Your task to perform on an android device: snooze an email in the gmail app Image 0: 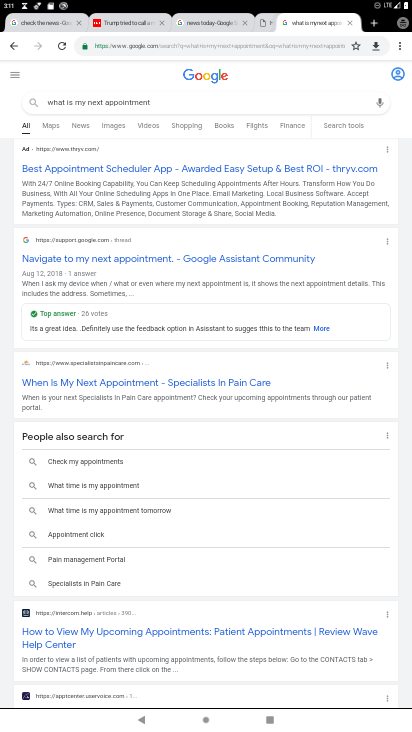
Step 0: press home button
Your task to perform on an android device: snooze an email in the gmail app Image 1: 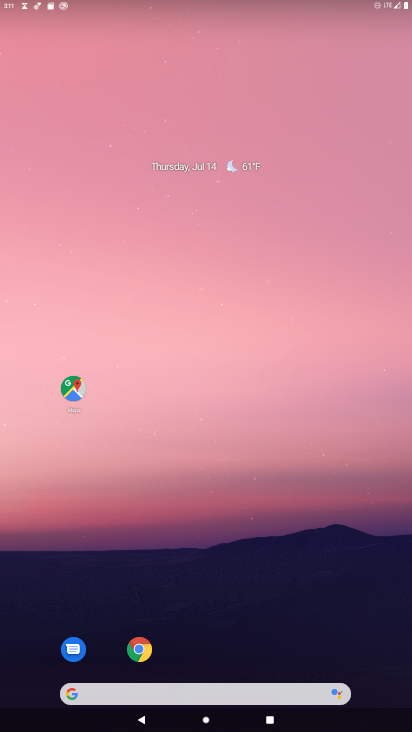
Step 1: drag from (274, 703) to (271, 72)
Your task to perform on an android device: snooze an email in the gmail app Image 2: 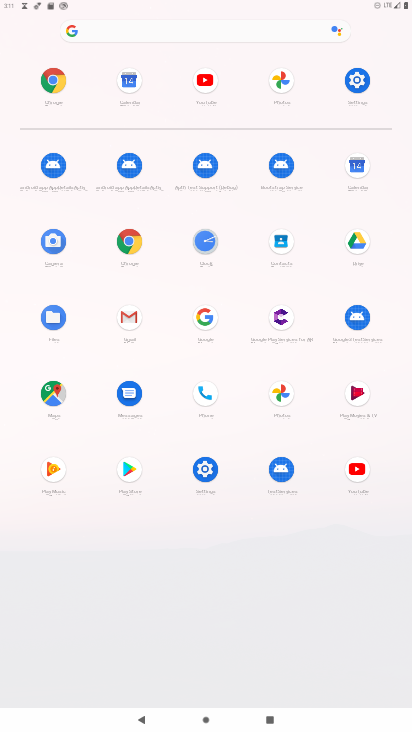
Step 2: click (129, 319)
Your task to perform on an android device: snooze an email in the gmail app Image 3: 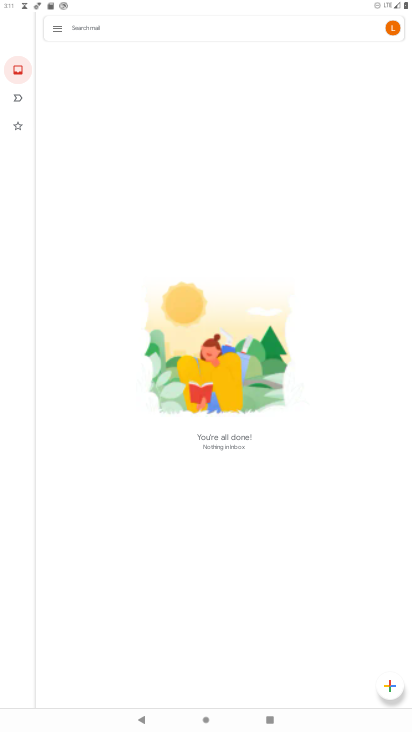
Step 3: click (62, 24)
Your task to perform on an android device: snooze an email in the gmail app Image 4: 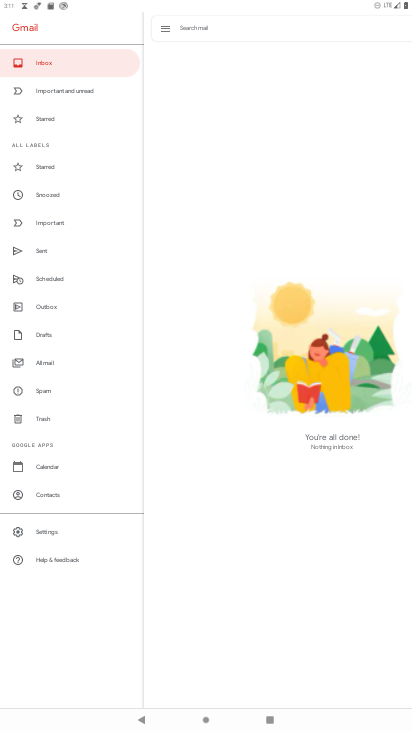
Step 4: click (50, 190)
Your task to perform on an android device: snooze an email in the gmail app Image 5: 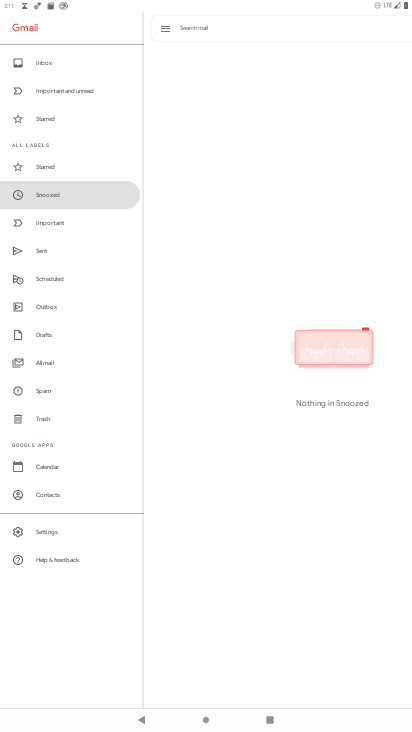
Step 5: task complete